Your task to perform on an android device: change notification settings in the gmail app Image 0: 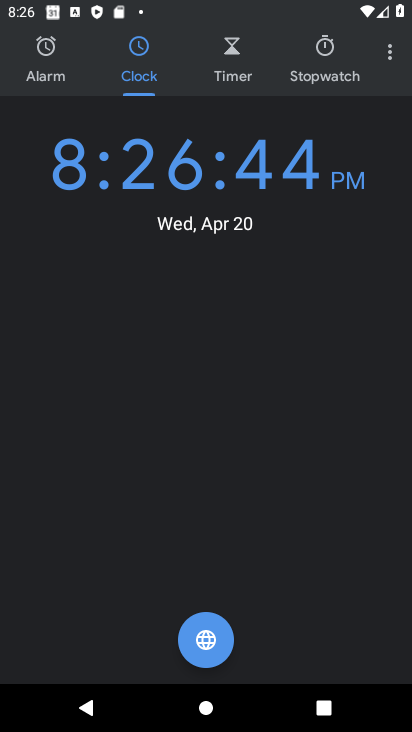
Step 0: press home button
Your task to perform on an android device: change notification settings in the gmail app Image 1: 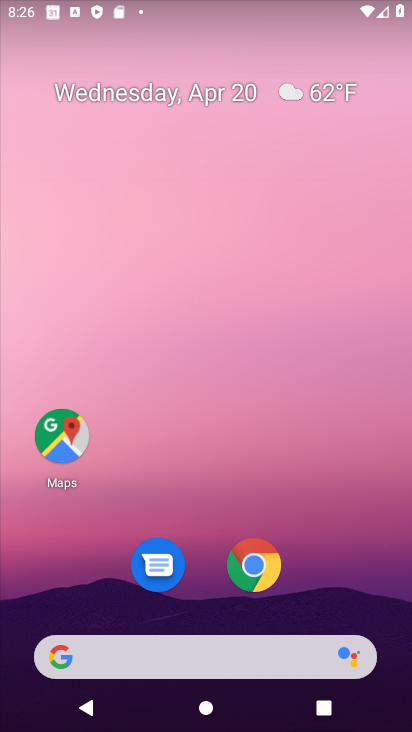
Step 1: drag from (354, 534) to (268, 77)
Your task to perform on an android device: change notification settings in the gmail app Image 2: 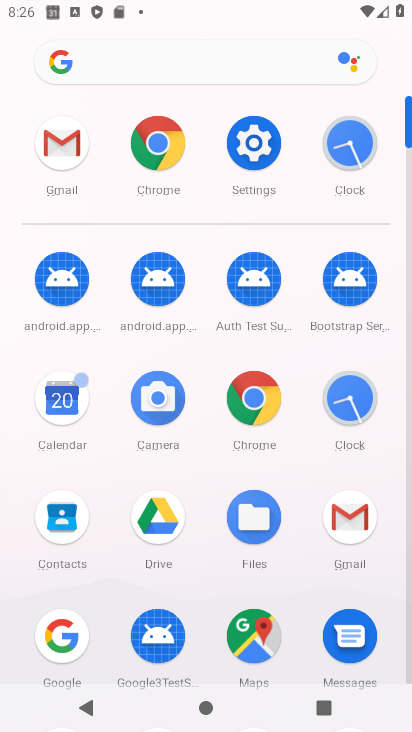
Step 2: click (354, 523)
Your task to perform on an android device: change notification settings in the gmail app Image 3: 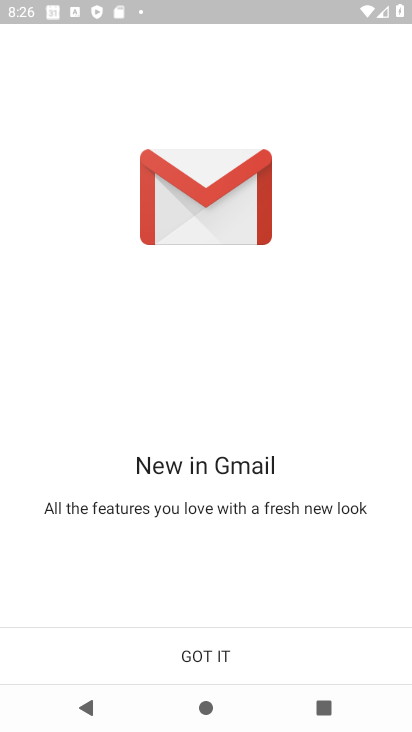
Step 3: click (220, 652)
Your task to perform on an android device: change notification settings in the gmail app Image 4: 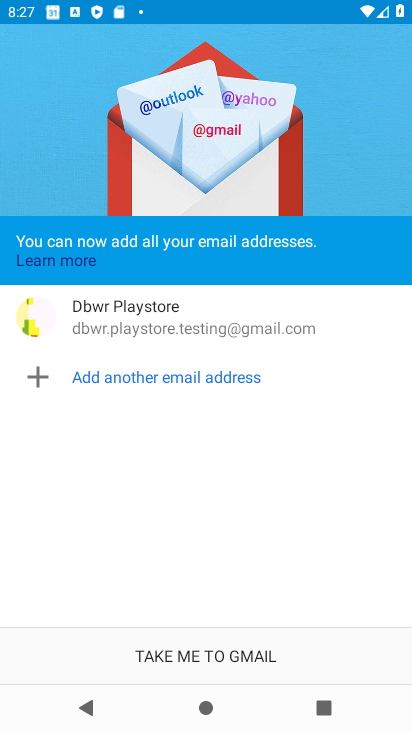
Step 4: click (220, 653)
Your task to perform on an android device: change notification settings in the gmail app Image 5: 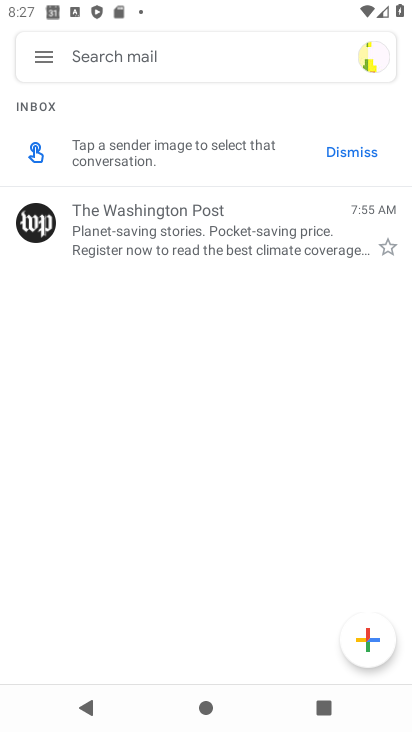
Step 5: click (38, 63)
Your task to perform on an android device: change notification settings in the gmail app Image 6: 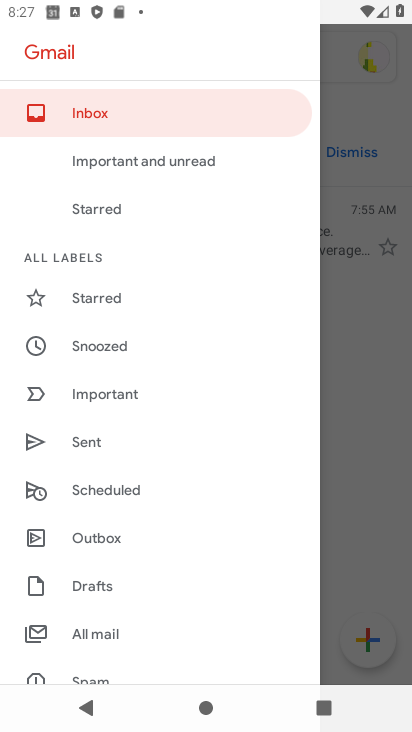
Step 6: drag from (197, 642) to (204, 292)
Your task to perform on an android device: change notification settings in the gmail app Image 7: 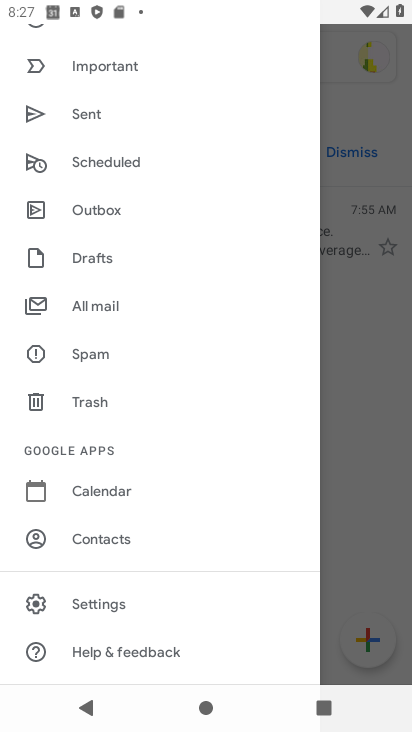
Step 7: click (99, 602)
Your task to perform on an android device: change notification settings in the gmail app Image 8: 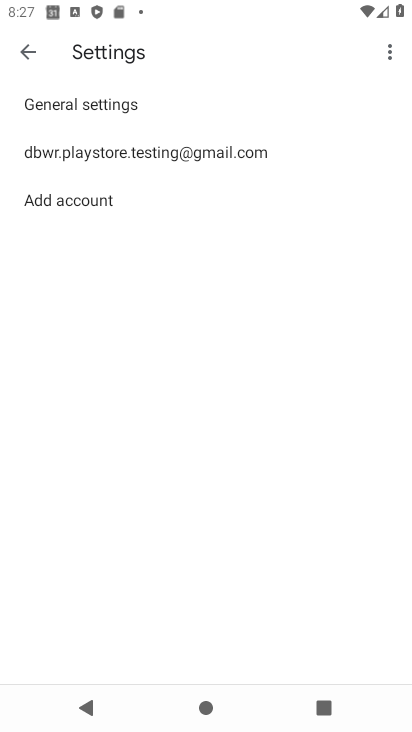
Step 8: click (131, 154)
Your task to perform on an android device: change notification settings in the gmail app Image 9: 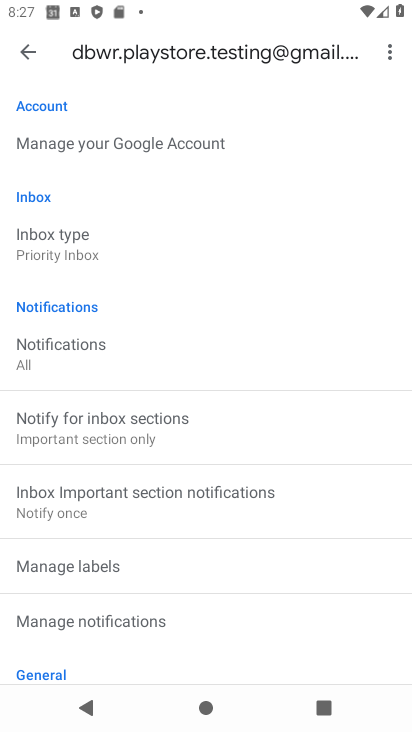
Step 9: click (78, 356)
Your task to perform on an android device: change notification settings in the gmail app Image 10: 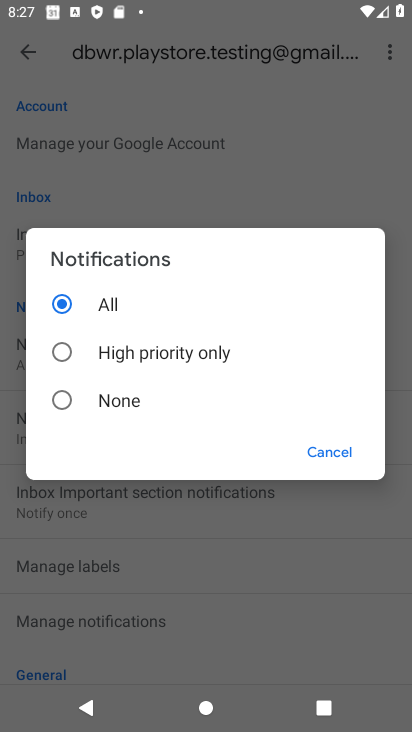
Step 10: click (55, 335)
Your task to perform on an android device: change notification settings in the gmail app Image 11: 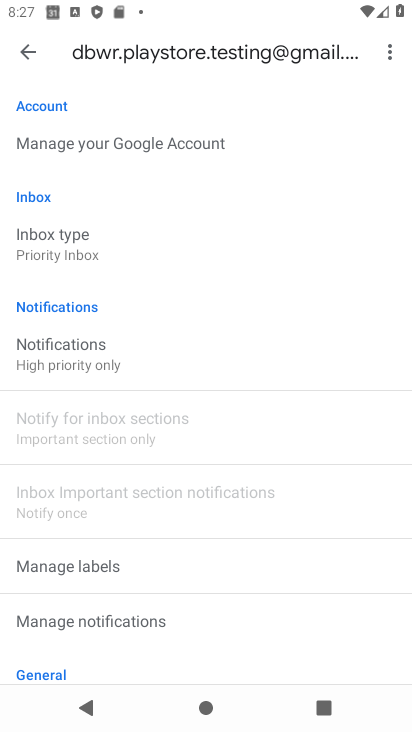
Step 11: task complete